Your task to perform on an android device: find snoozed emails in the gmail app Image 0: 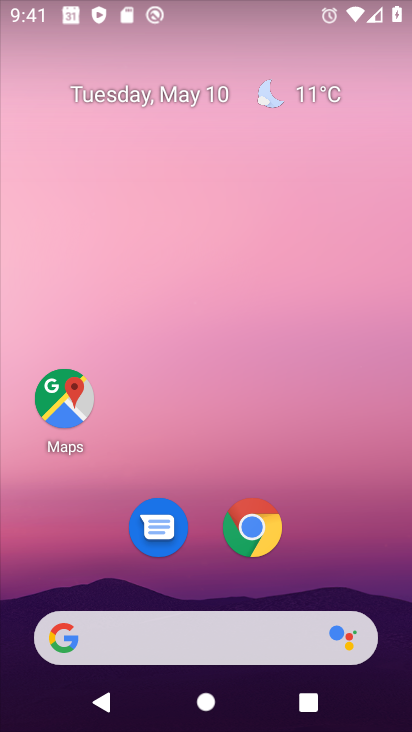
Step 0: drag from (372, 490) to (311, 39)
Your task to perform on an android device: find snoozed emails in the gmail app Image 1: 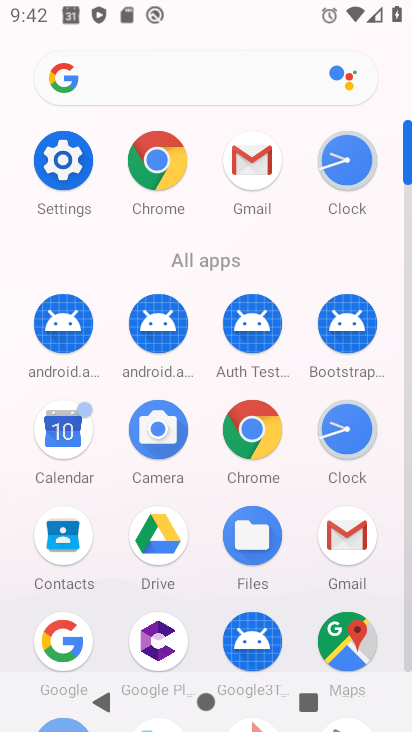
Step 1: click (337, 535)
Your task to perform on an android device: find snoozed emails in the gmail app Image 2: 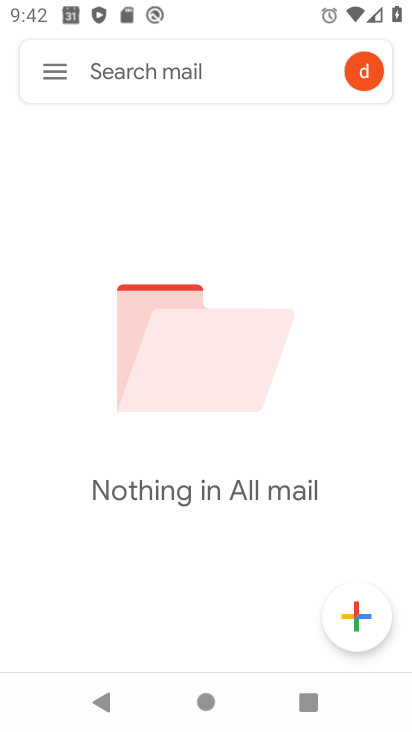
Step 2: click (63, 60)
Your task to perform on an android device: find snoozed emails in the gmail app Image 3: 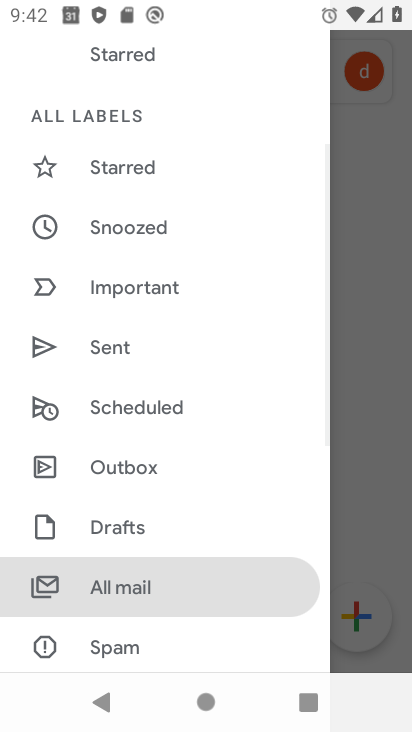
Step 3: click (111, 220)
Your task to perform on an android device: find snoozed emails in the gmail app Image 4: 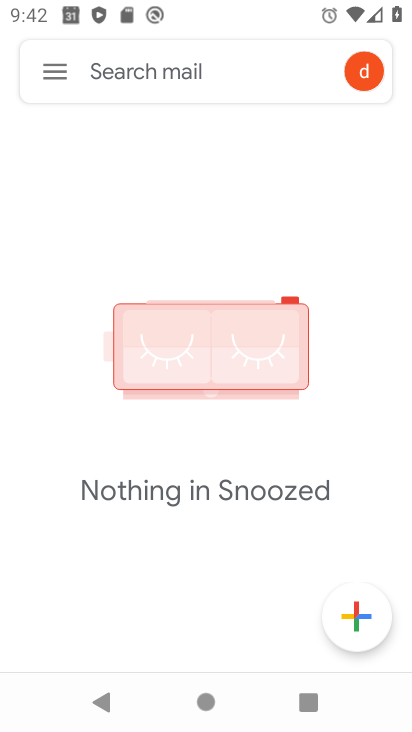
Step 4: task complete